Your task to perform on an android device: change notification settings in the gmail app Image 0: 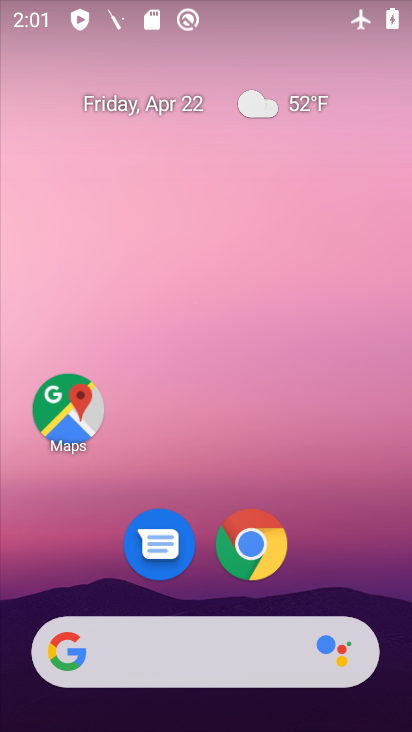
Step 0: drag from (217, 600) to (265, 162)
Your task to perform on an android device: change notification settings in the gmail app Image 1: 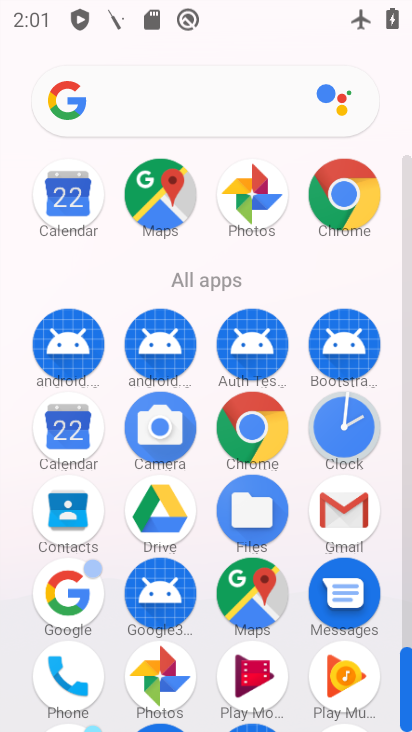
Step 1: click (325, 520)
Your task to perform on an android device: change notification settings in the gmail app Image 2: 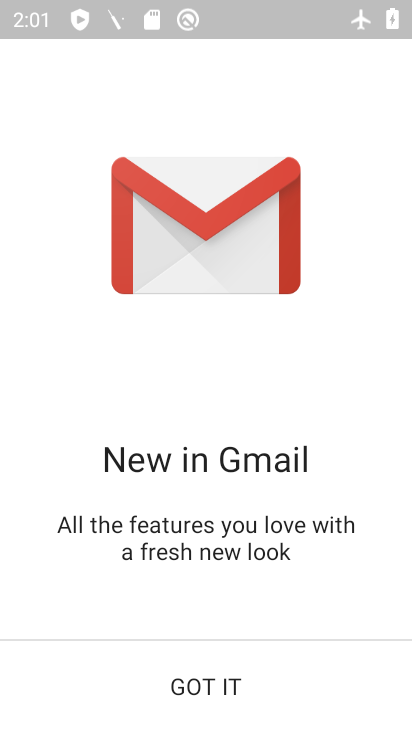
Step 2: click (145, 691)
Your task to perform on an android device: change notification settings in the gmail app Image 3: 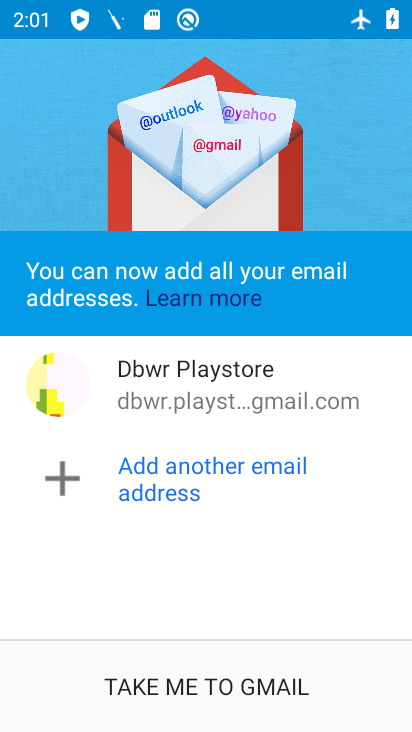
Step 3: click (196, 684)
Your task to perform on an android device: change notification settings in the gmail app Image 4: 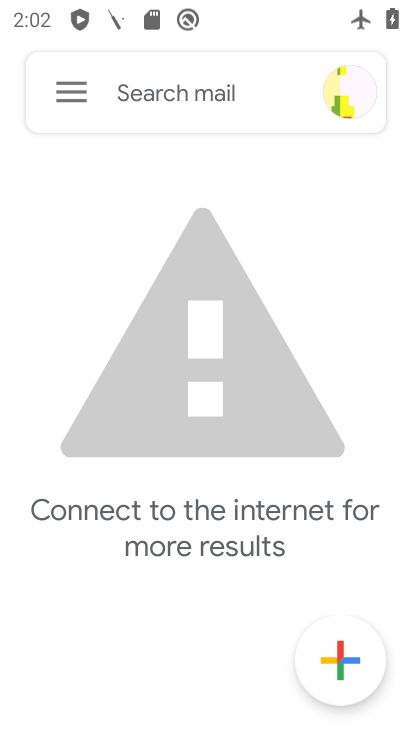
Step 4: click (75, 87)
Your task to perform on an android device: change notification settings in the gmail app Image 5: 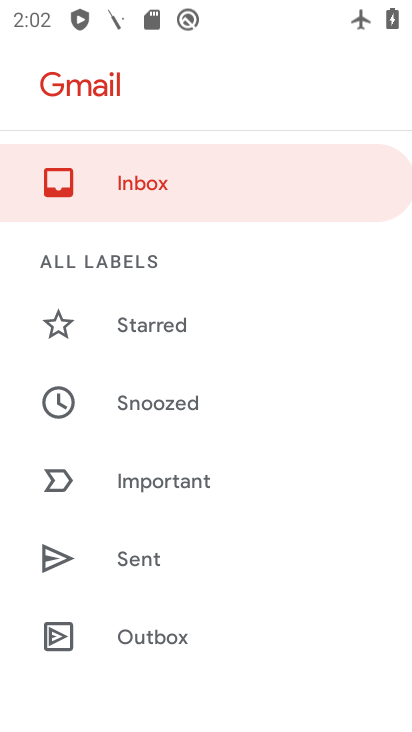
Step 5: drag from (74, 575) to (151, 78)
Your task to perform on an android device: change notification settings in the gmail app Image 6: 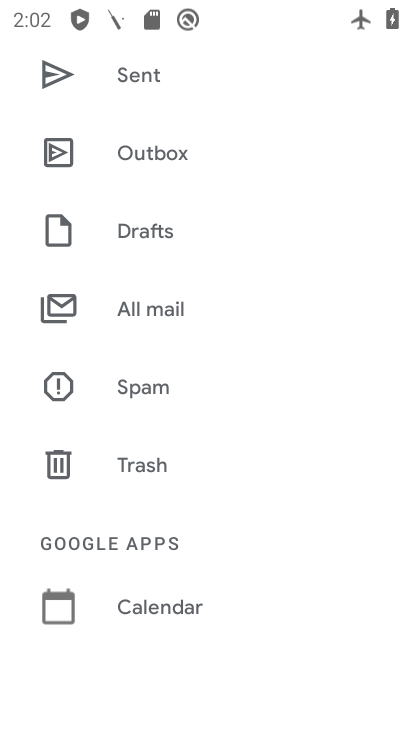
Step 6: drag from (229, 612) to (216, 234)
Your task to perform on an android device: change notification settings in the gmail app Image 7: 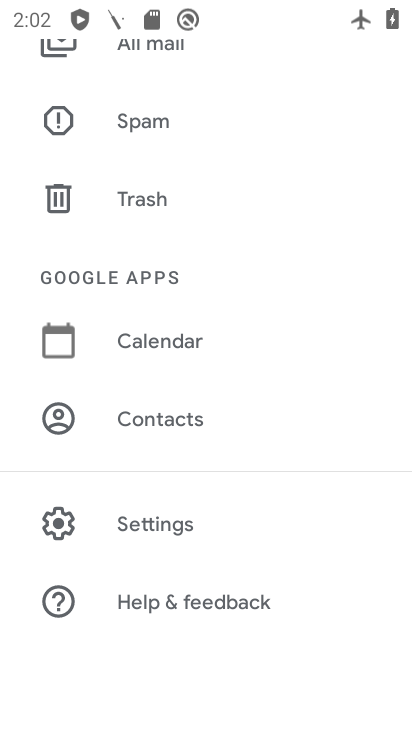
Step 7: click (160, 539)
Your task to perform on an android device: change notification settings in the gmail app Image 8: 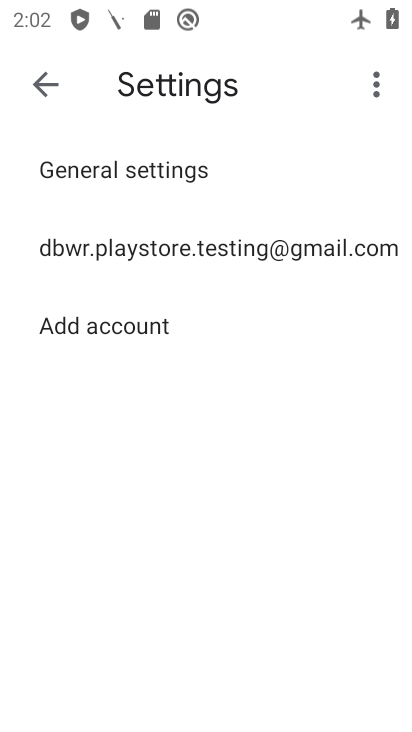
Step 8: click (188, 263)
Your task to perform on an android device: change notification settings in the gmail app Image 9: 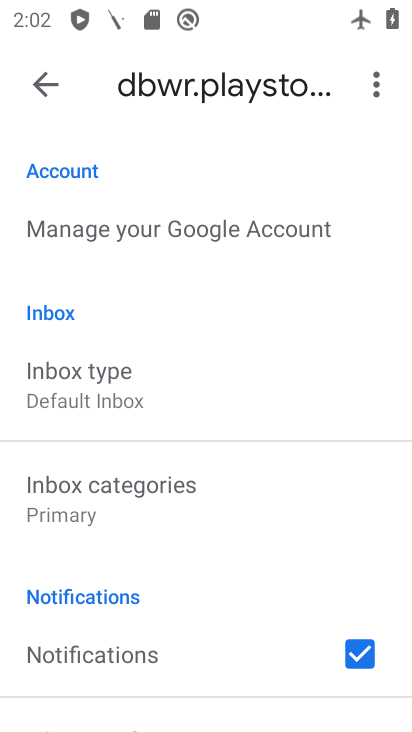
Step 9: drag from (104, 634) to (126, 334)
Your task to perform on an android device: change notification settings in the gmail app Image 10: 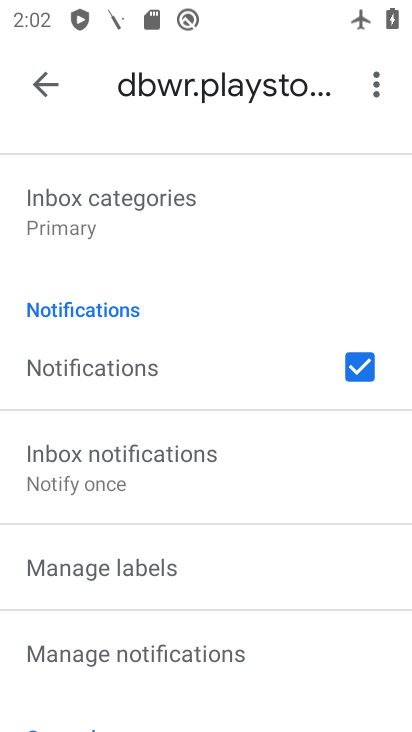
Step 10: click (363, 365)
Your task to perform on an android device: change notification settings in the gmail app Image 11: 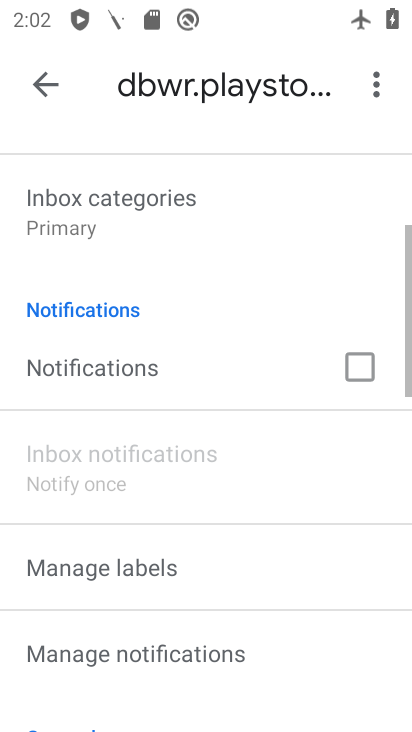
Step 11: task complete